Your task to perform on an android device: turn pop-ups off in chrome Image 0: 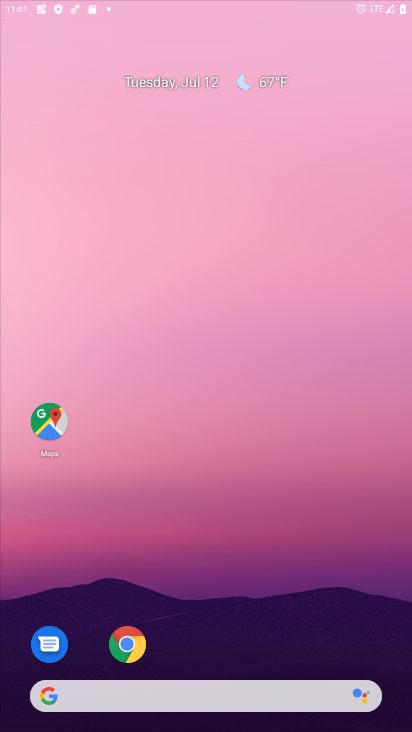
Step 0: click (392, 374)
Your task to perform on an android device: turn pop-ups off in chrome Image 1: 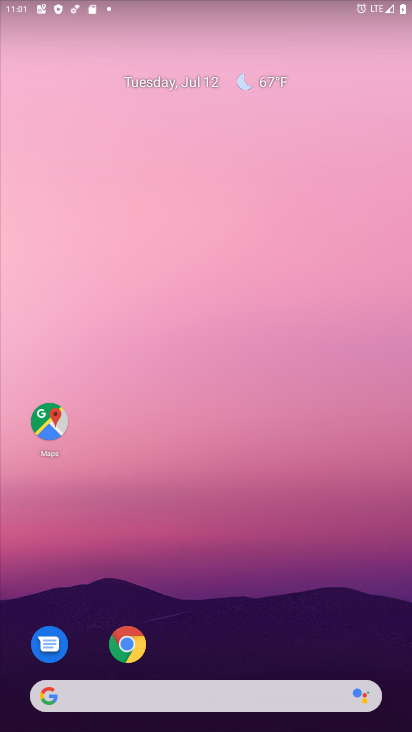
Step 1: drag from (200, 590) to (217, 152)
Your task to perform on an android device: turn pop-ups off in chrome Image 2: 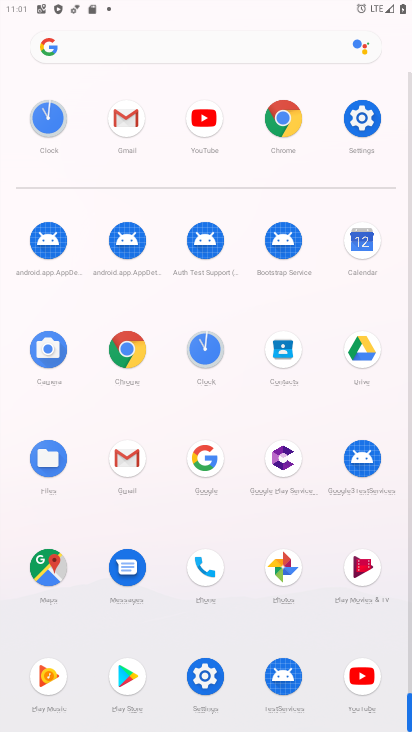
Step 2: click (125, 355)
Your task to perform on an android device: turn pop-ups off in chrome Image 3: 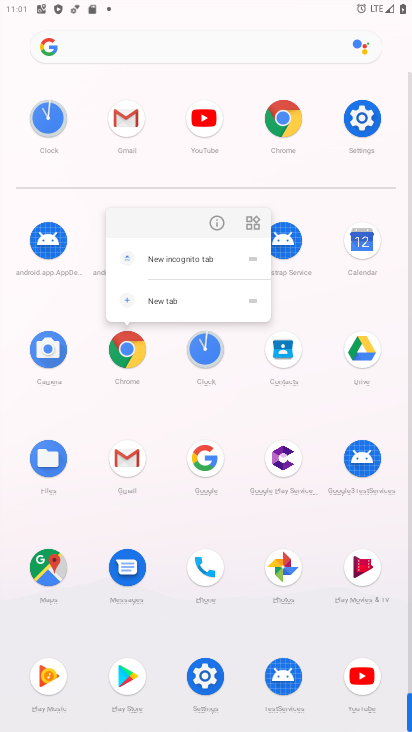
Step 3: click (222, 214)
Your task to perform on an android device: turn pop-ups off in chrome Image 4: 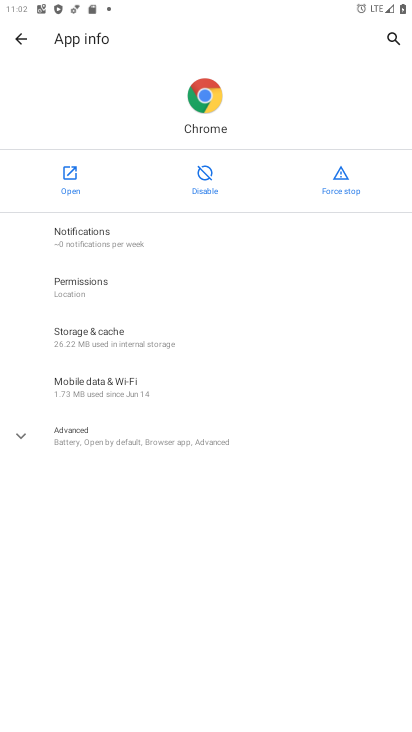
Step 4: click (68, 170)
Your task to perform on an android device: turn pop-ups off in chrome Image 5: 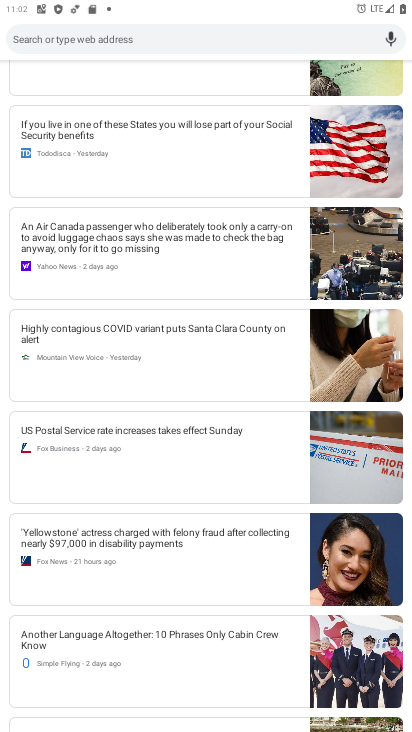
Step 5: drag from (134, 214) to (335, 683)
Your task to perform on an android device: turn pop-ups off in chrome Image 6: 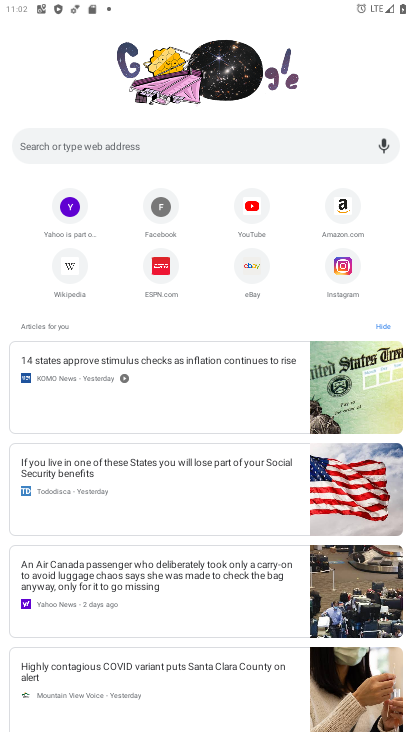
Step 6: drag from (237, 129) to (306, 391)
Your task to perform on an android device: turn pop-ups off in chrome Image 7: 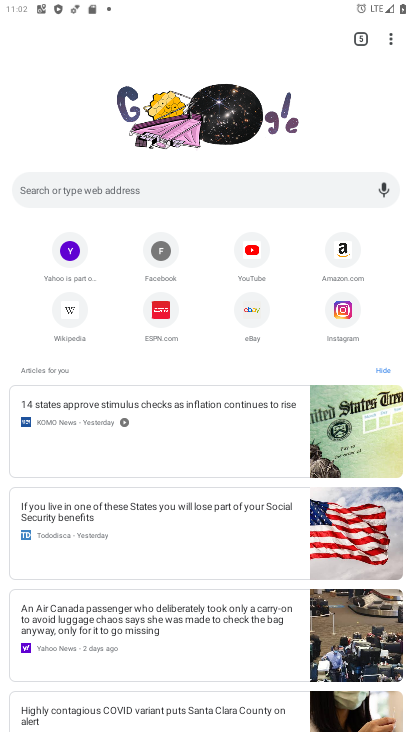
Step 7: click (389, 37)
Your task to perform on an android device: turn pop-ups off in chrome Image 8: 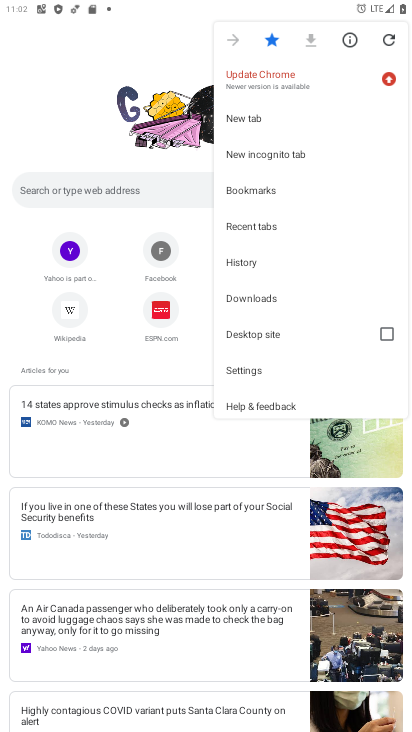
Step 8: click (245, 366)
Your task to perform on an android device: turn pop-ups off in chrome Image 9: 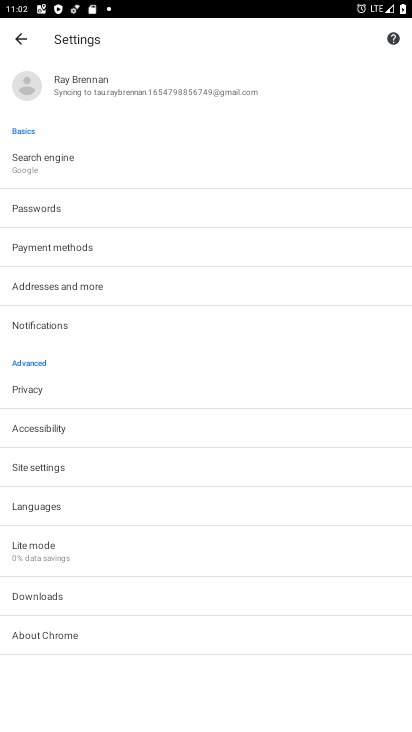
Step 9: click (76, 466)
Your task to perform on an android device: turn pop-ups off in chrome Image 10: 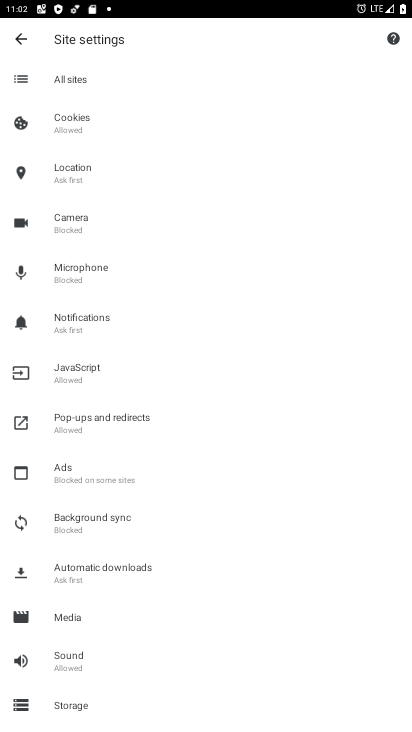
Step 10: click (110, 422)
Your task to perform on an android device: turn pop-ups off in chrome Image 11: 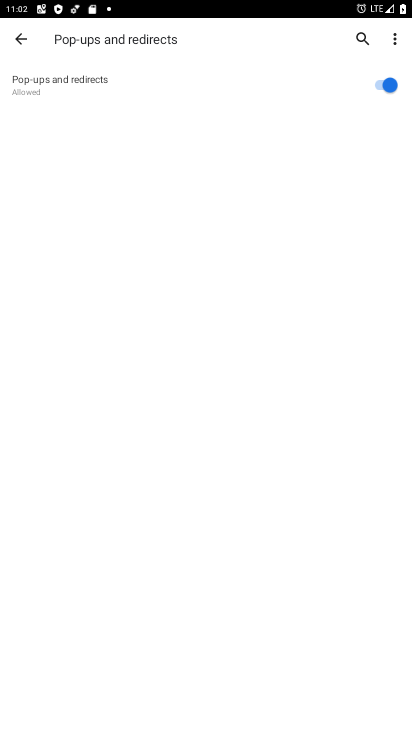
Step 11: click (390, 83)
Your task to perform on an android device: turn pop-ups off in chrome Image 12: 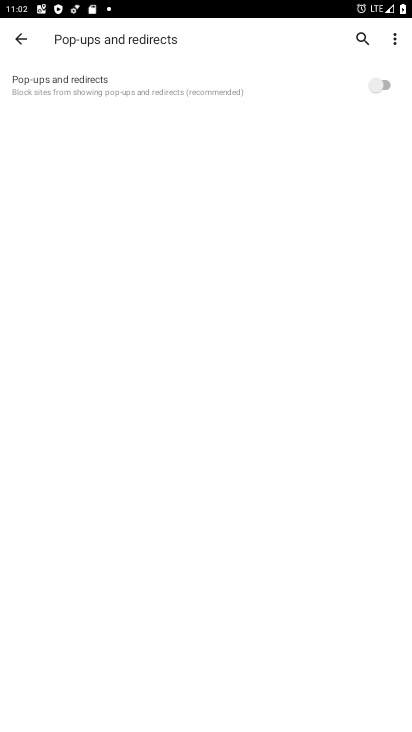
Step 12: task complete